Your task to perform on an android device: all mails in gmail Image 0: 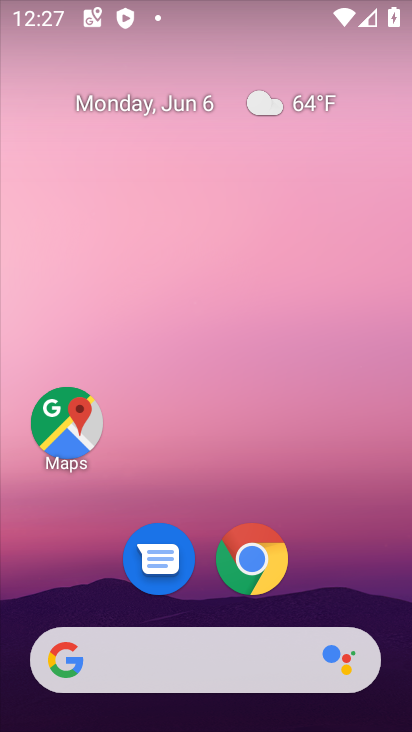
Step 0: drag from (217, 701) to (220, 166)
Your task to perform on an android device: all mails in gmail Image 1: 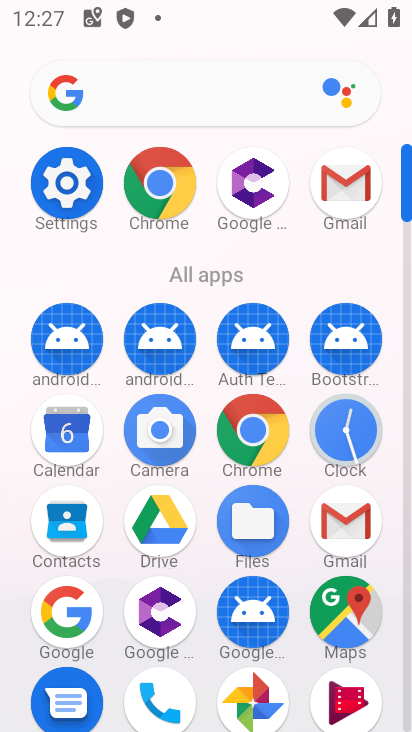
Step 1: click (363, 190)
Your task to perform on an android device: all mails in gmail Image 2: 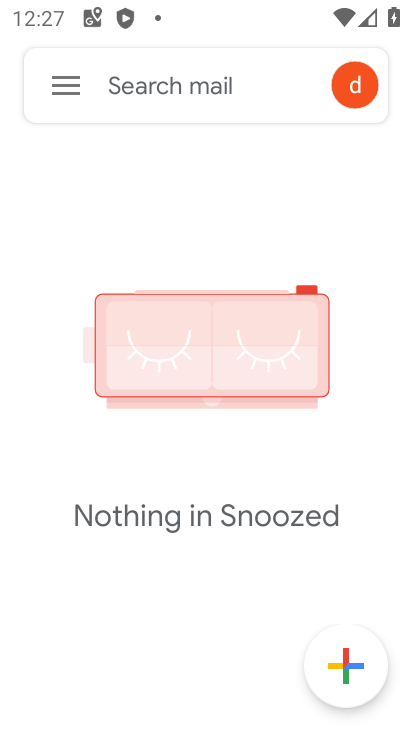
Step 2: click (65, 92)
Your task to perform on an android device: all mails in gmail Image 3: 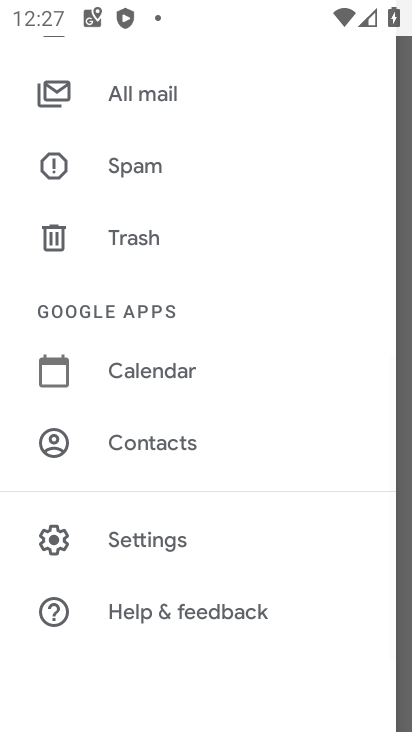
Step 3: drag from (159, 204) to (199, 289)
Your task to perform on an android device: all mails in gmail Image 4: 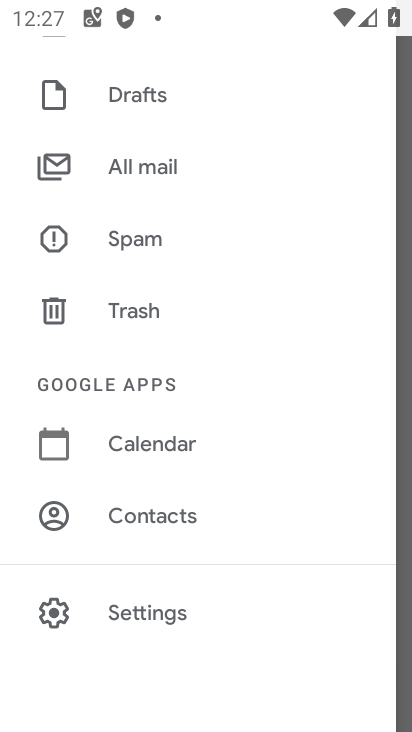
Step 4: click (155, 166)
Your task to perform on an android device: all mails in gmail Image 5: 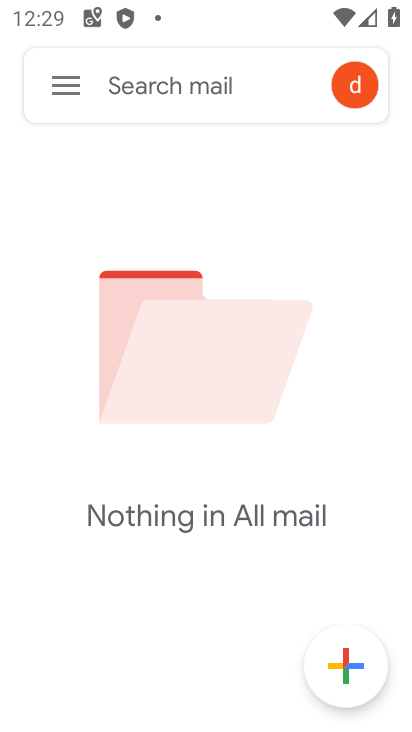
Step 5: task complete